Your task to perform on an android device: install app "DoorDash - Food Delivery" Image 0: 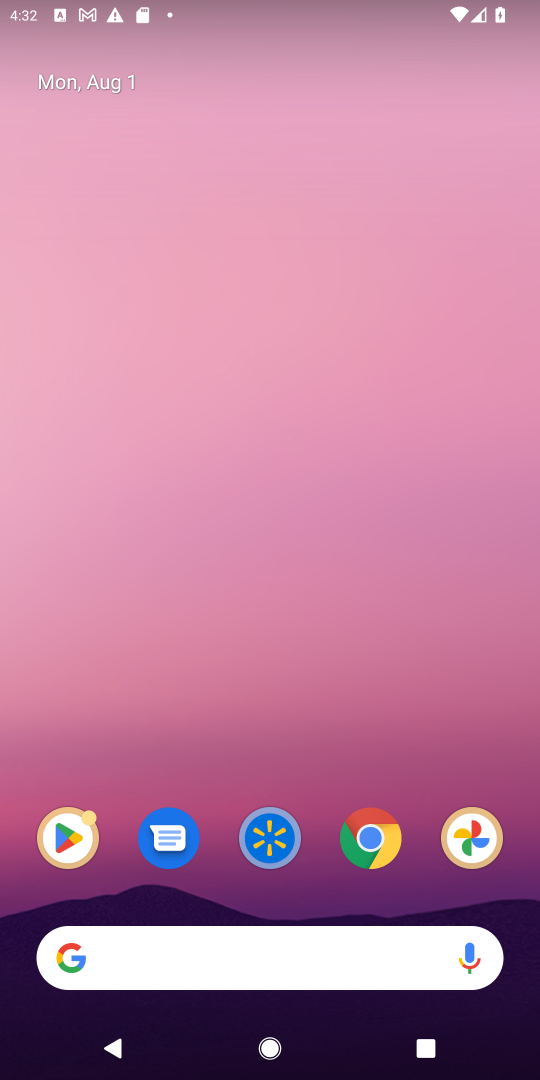
Step 0: click (79, 816)
Your task to perform on an android device: install app "DoorDash - Food Delivery" Image 1: 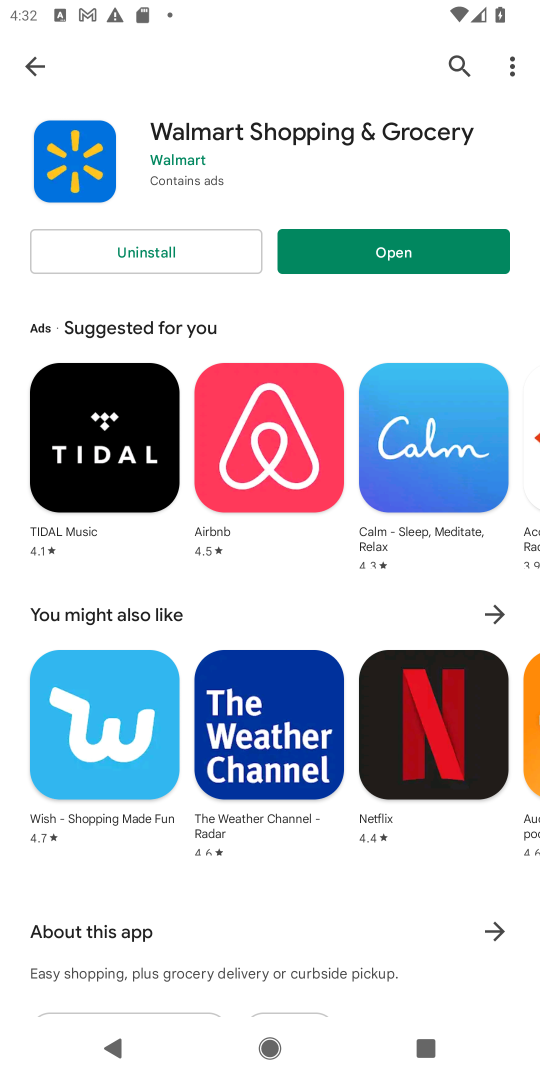
Step 1: click (446, 55)
Your task to perform on an android device: install app "DoorDash - Food Delivery" Image 2: 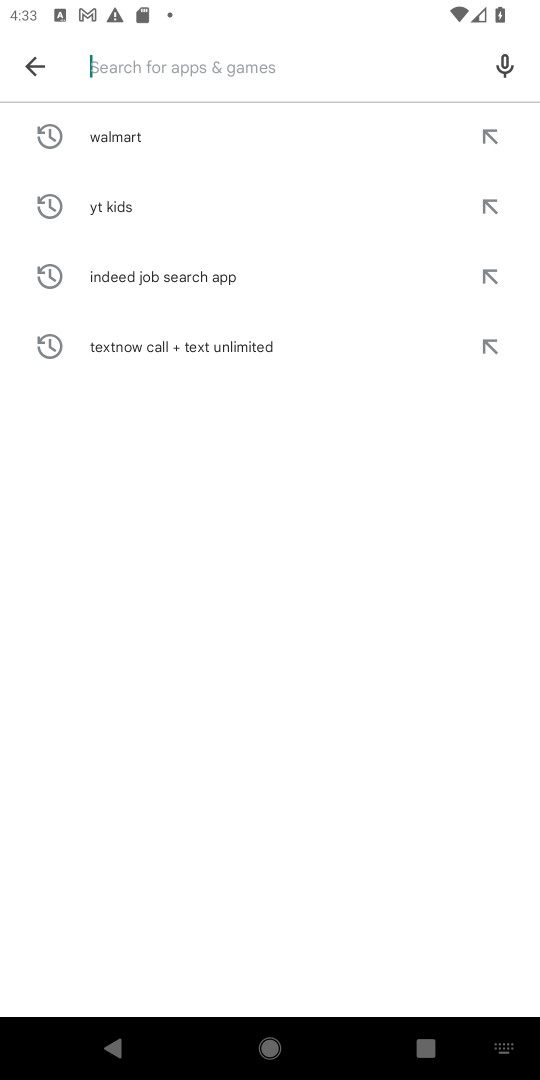
Step 2: type "doordash"
Your task to perform on an android device: install app "DoorDash - Food Delivery" Image 3: 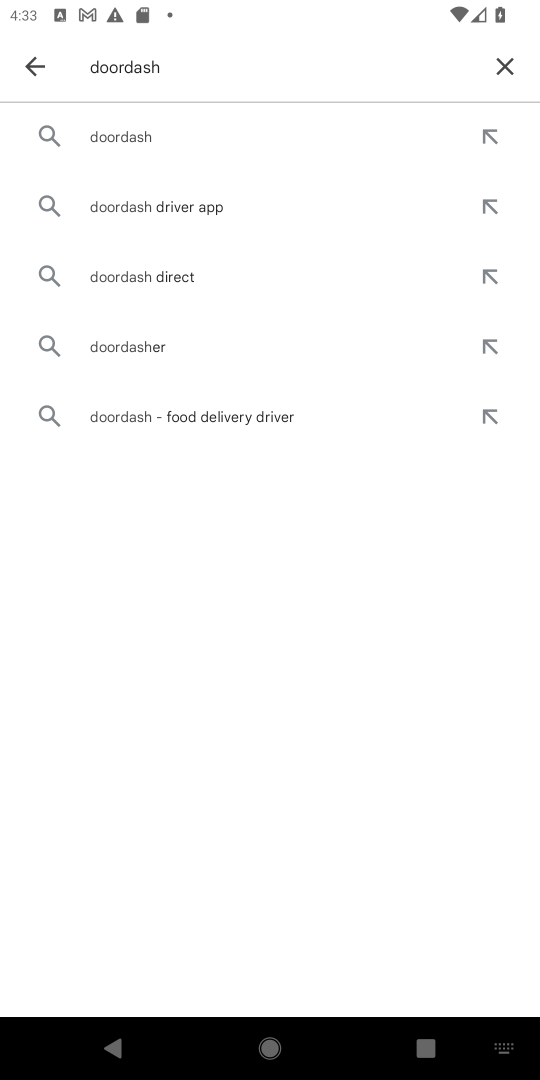
Step 3: click (185, 123)
Your task to perform on an android device: install app "DoorDash - Food Delivery" Image 4: 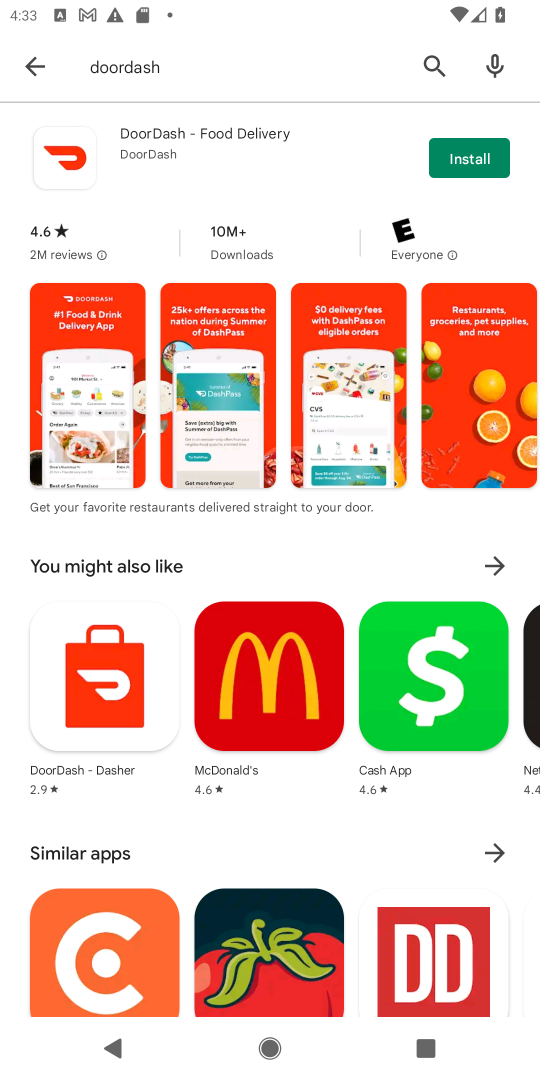
Step 4: click (478, 158)
Your task to perform on an android device: install app "DoorDash - Food Delivery" Image 5: 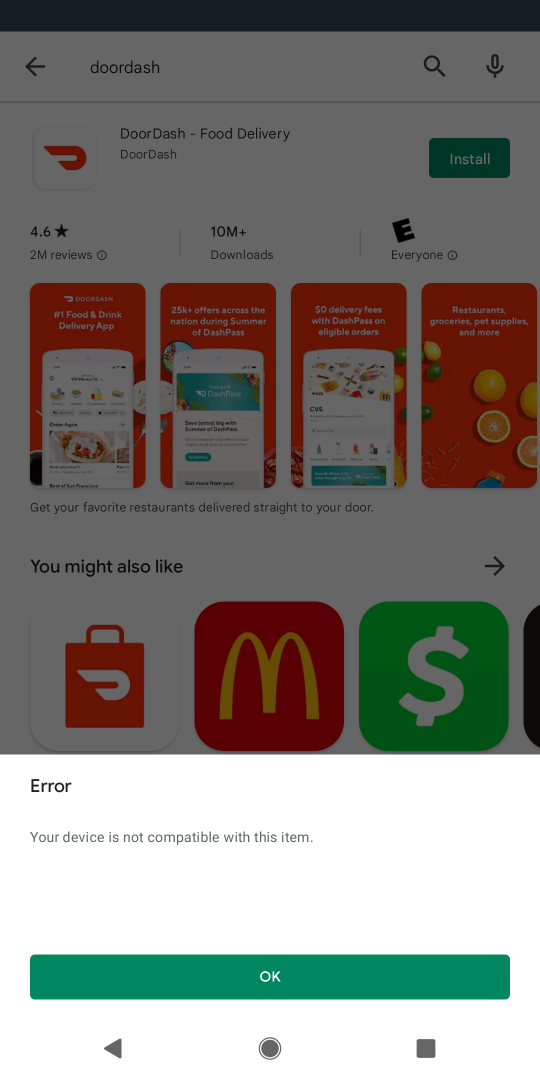
Step 5: click (342, 984)
Your task to perform on an android device: install app "DoorDash - Food Delivery" Image 6: 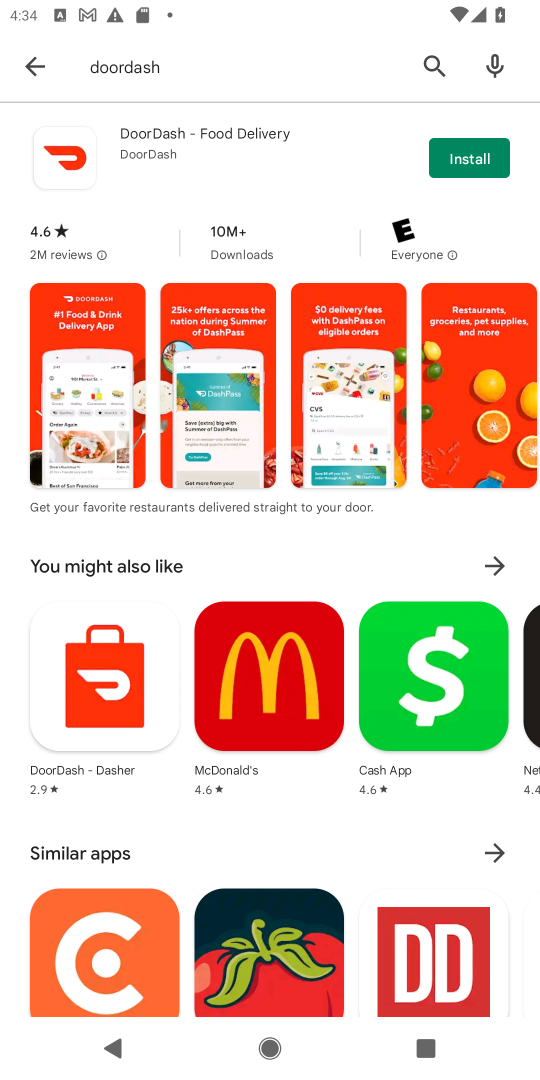
Step 6: click (475, 149)
Your task to perform on an android device: install app "DoorDash - Food Delivery" Image 7: 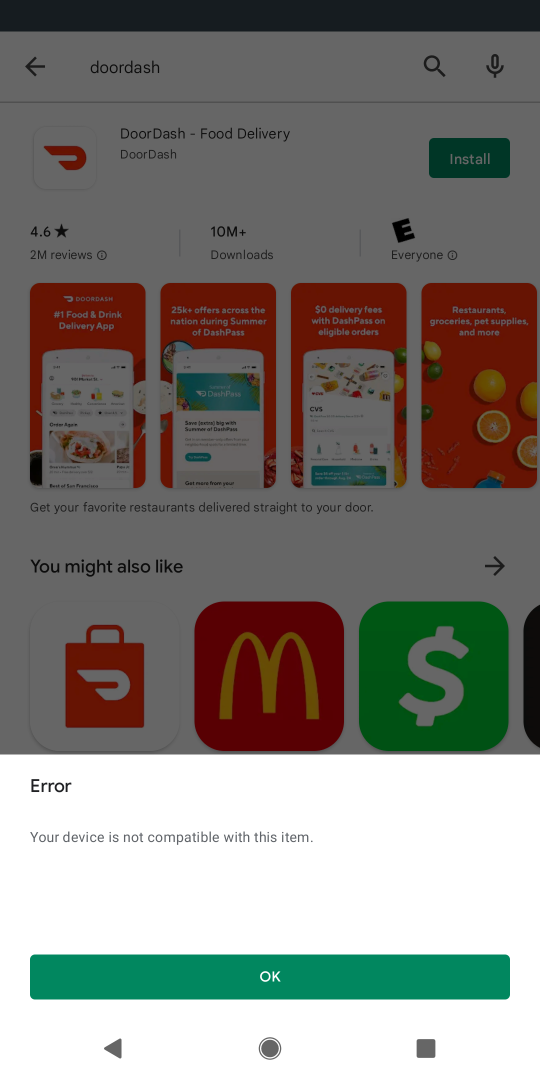
Step 7: task complete